Your task to perform on an android device: Open battery settings Image 0: 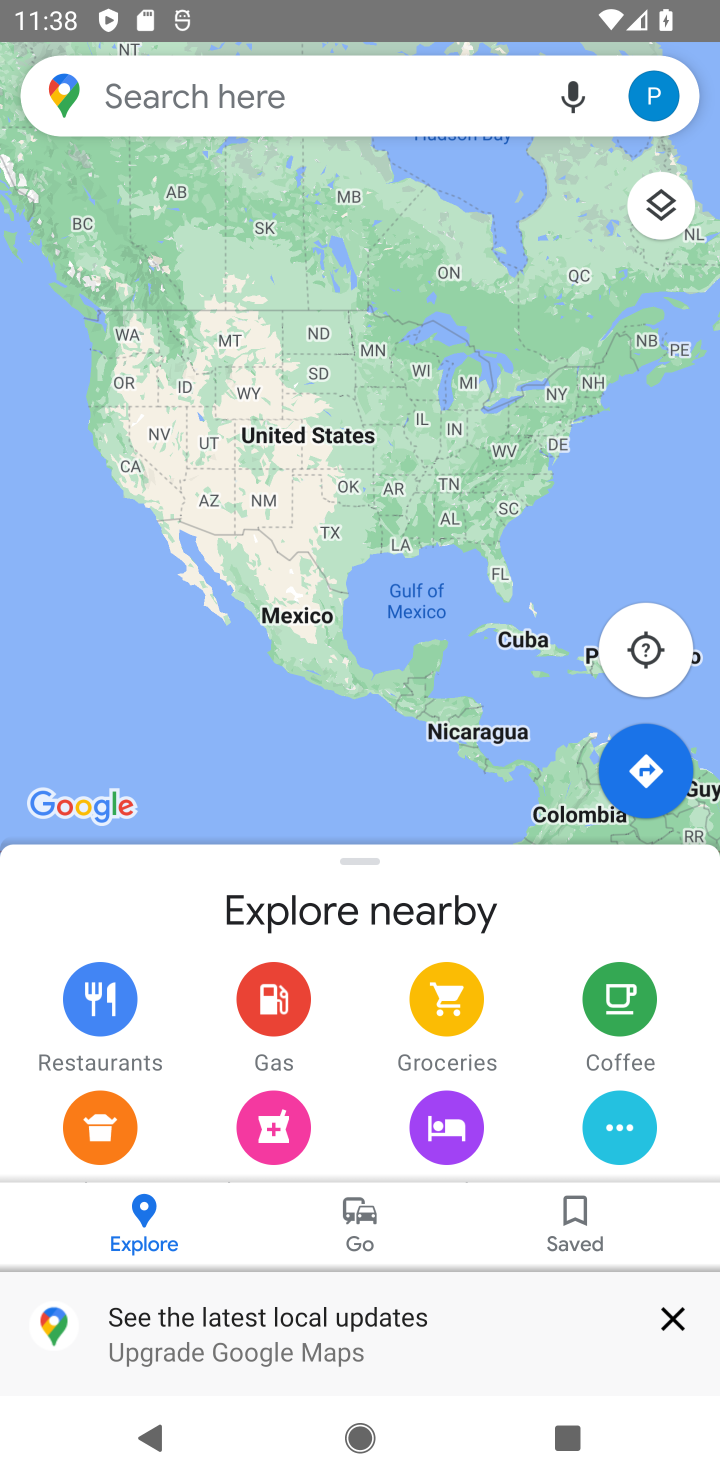
Step 0: press home button
Your task to perform on an android device: Open battery settings Image 1: 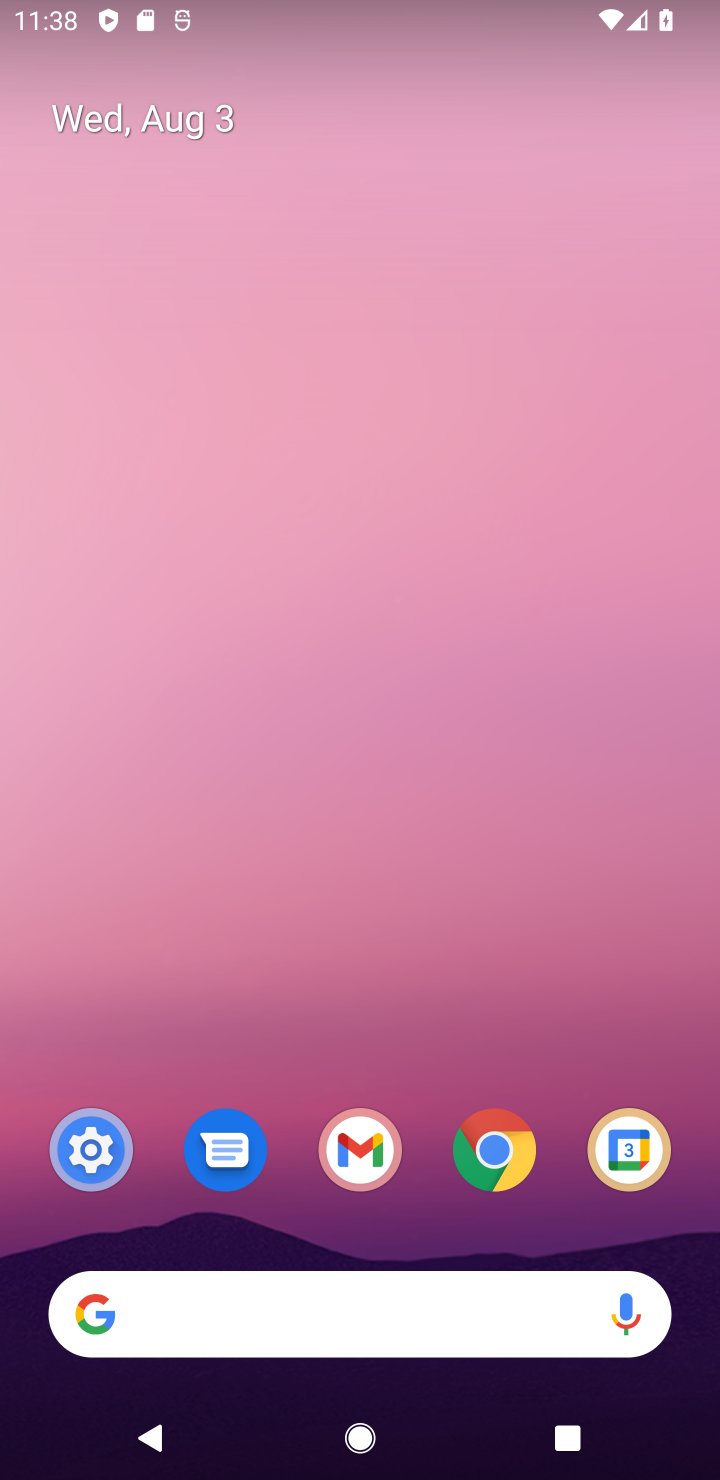
Step 1: drag from (584, 1001) to (552, 277)
Your task to perform on an android device: Open battery settings Image 2: 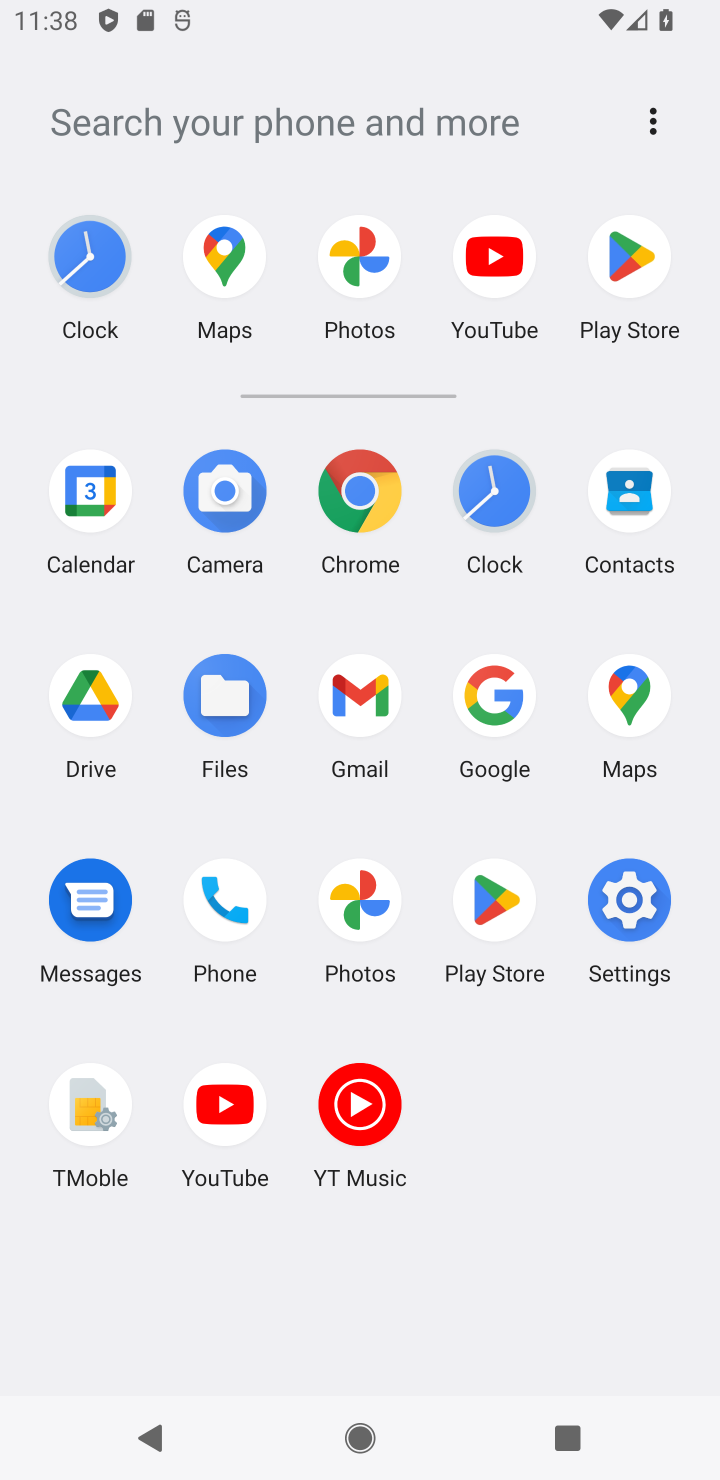
Step 2: click (625, 918)
Your task to perform on an android device: Open battery settings Image 3: 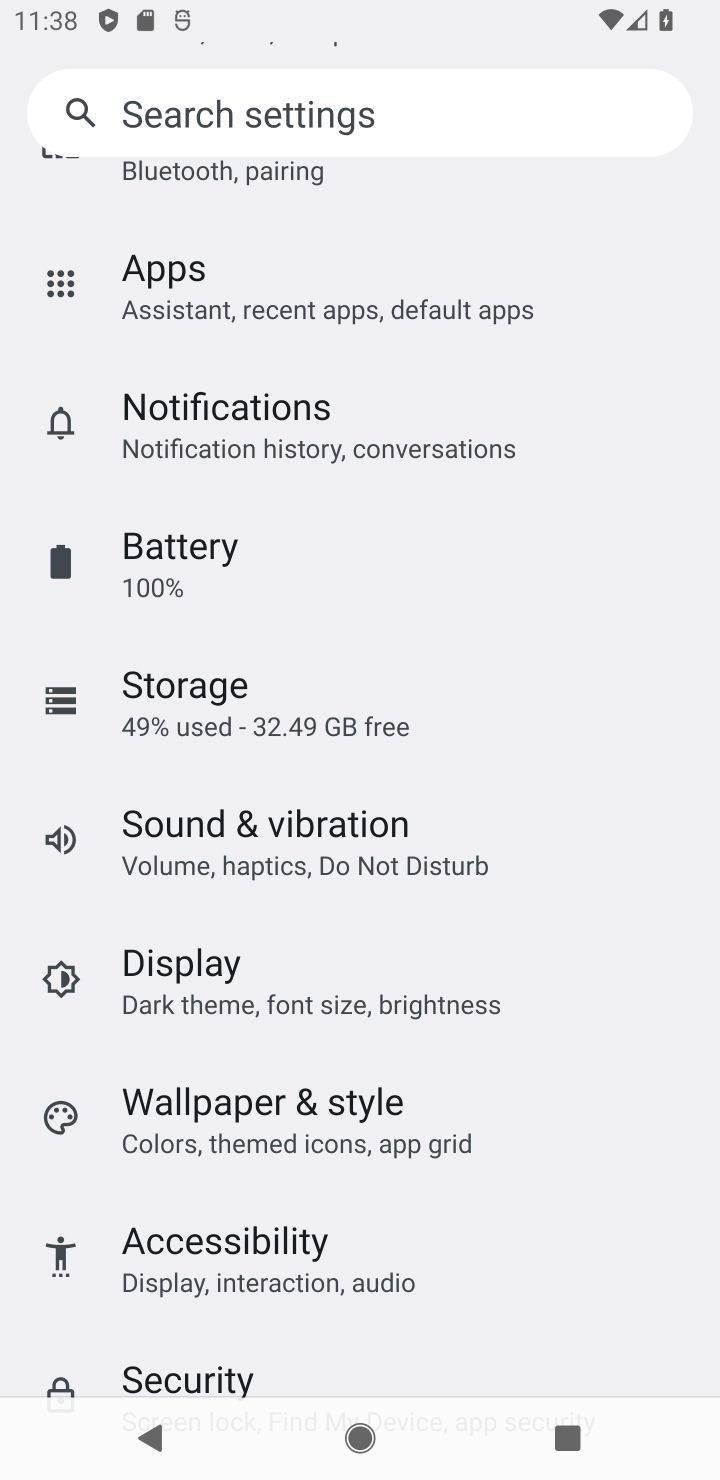
Step 3: drag from (564, 1203) to (559, 951)
Your task to perform on an android device: Open battery settings Image 4: 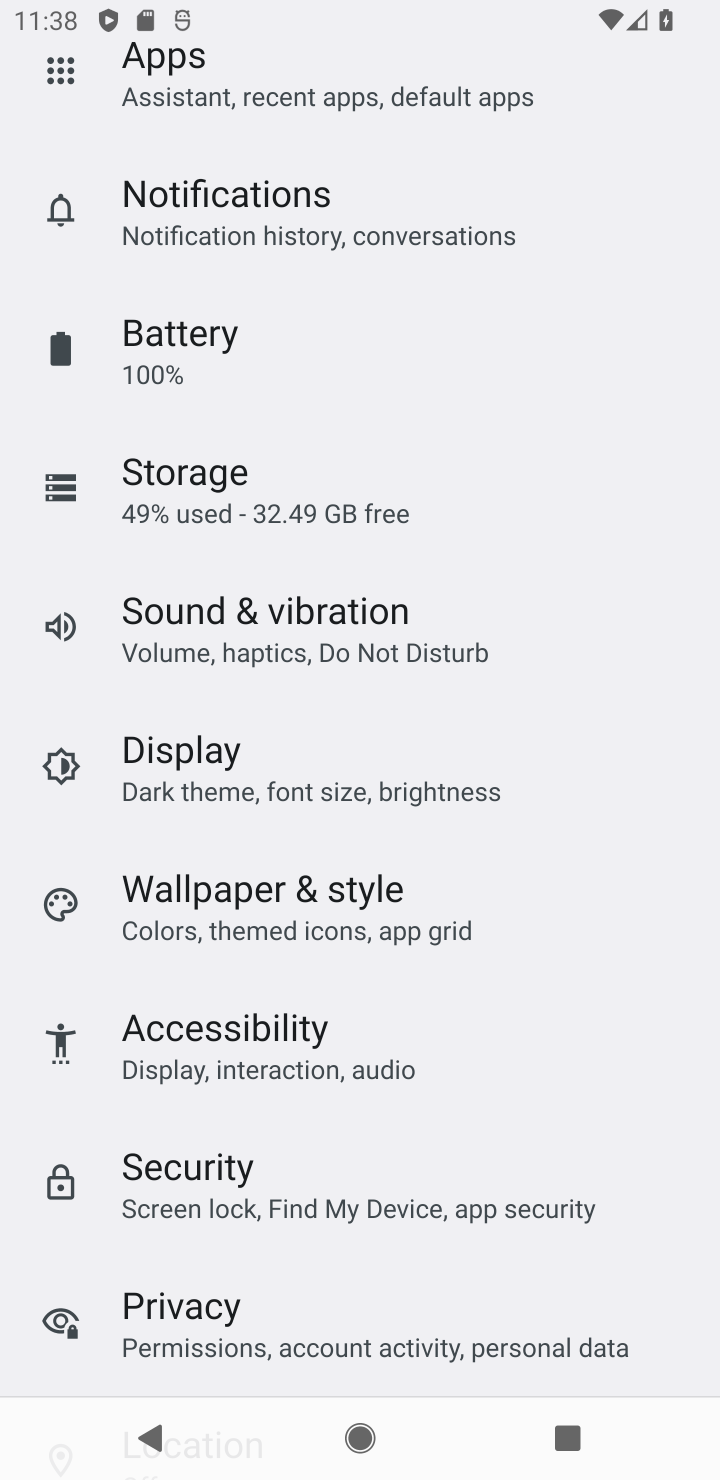
Step 4: drag from (564, 1227) to (568, 949)
Your task to perform on an android device: Open battery settings Image 5: 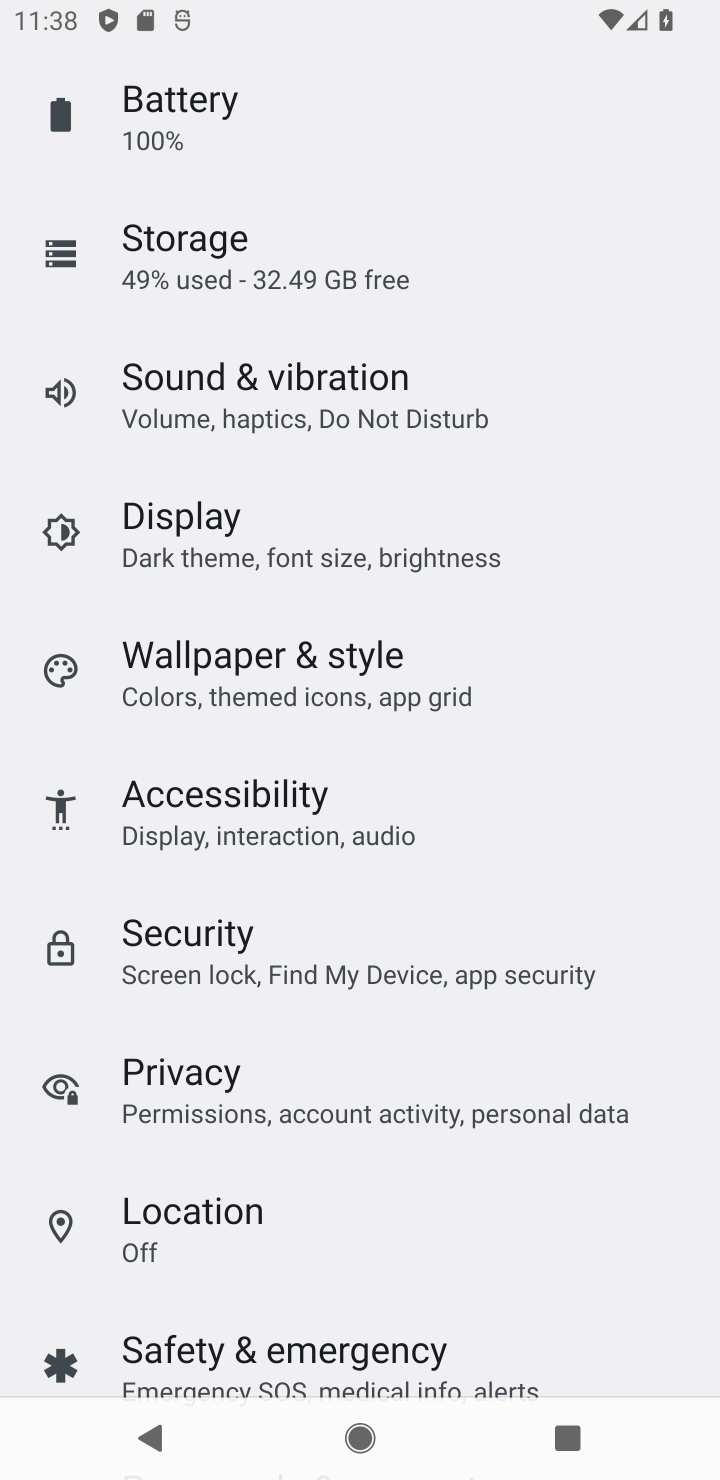
Step 5: drag from (568, 1247) to (577, 972)
Your task to perform on an android device: Open battery settings Image 6: 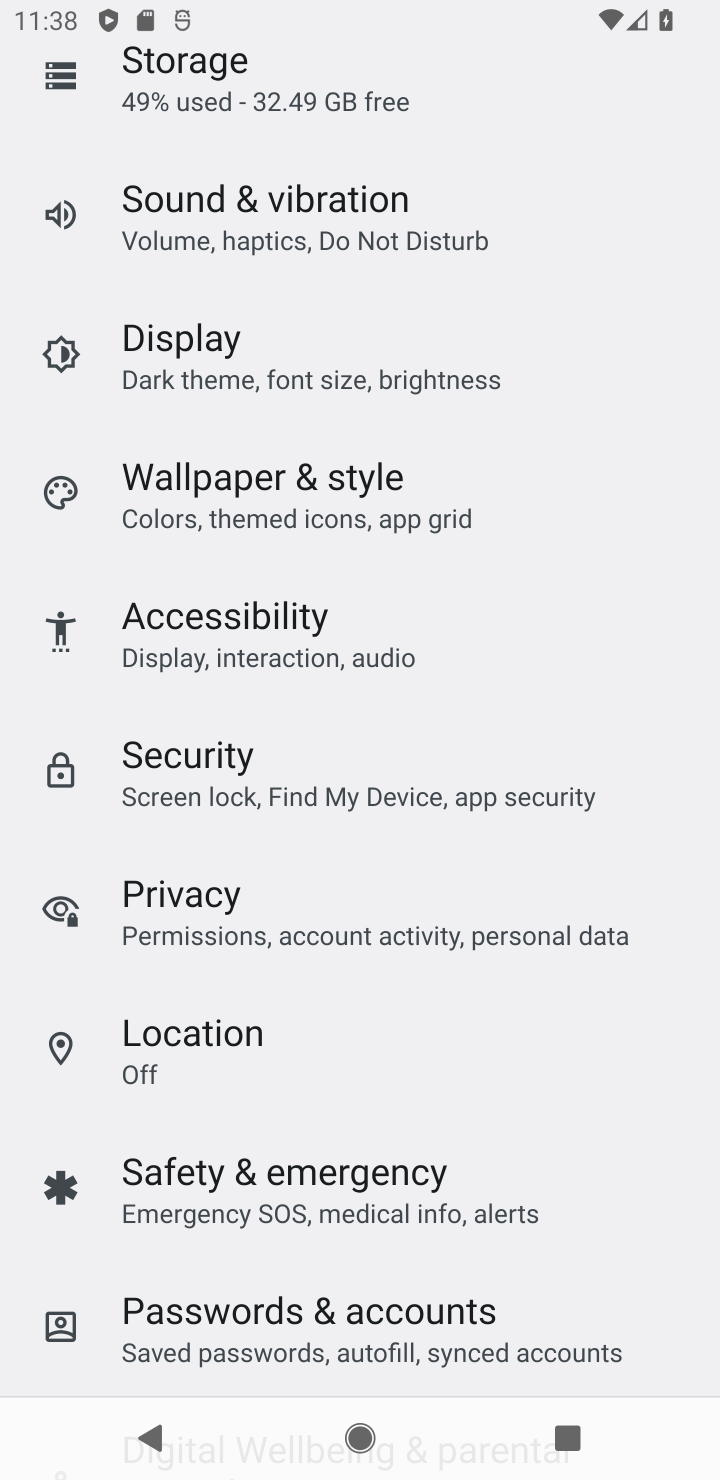
Step 6: drag from (606, 1248) to (607, 959)
Your task to perform on an android device: Open battery settings Image 7: 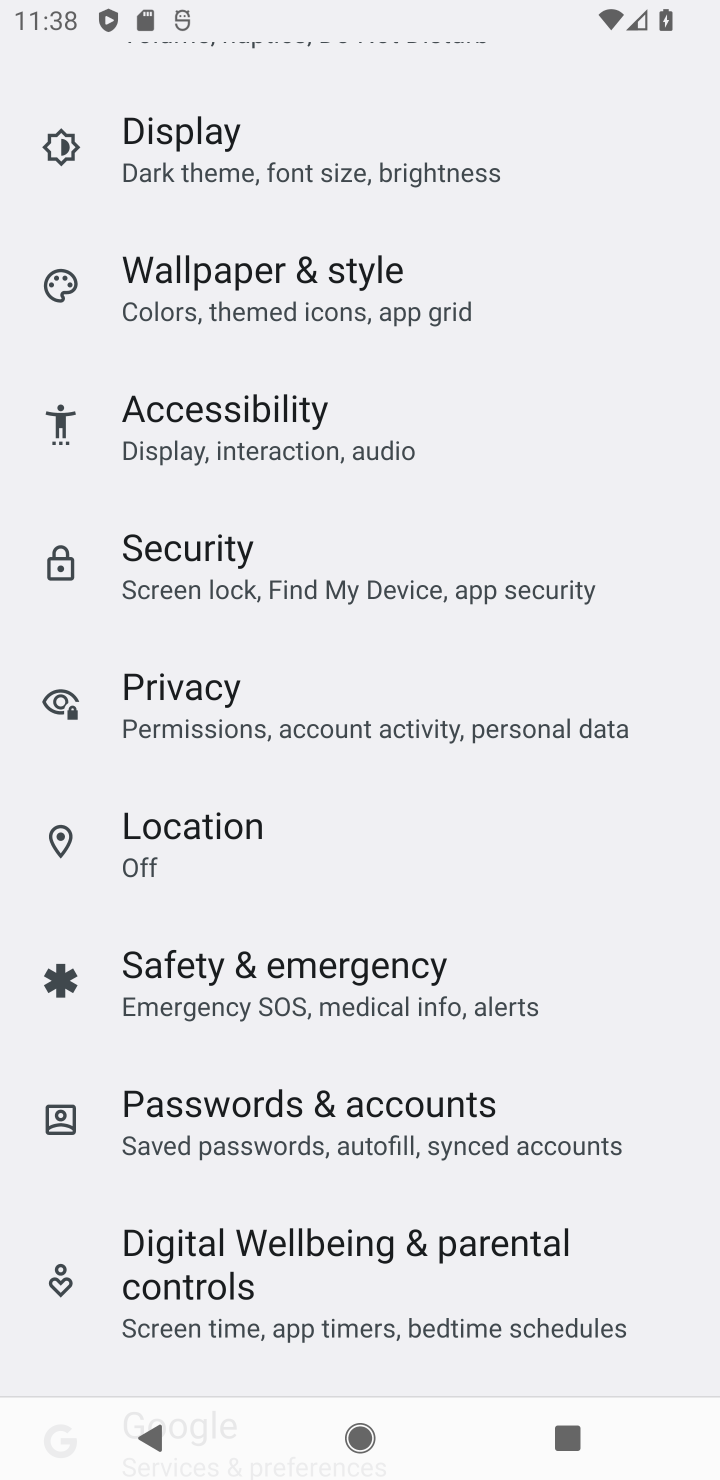
Step 7: drag from (640, 1243) to (644, 858)
Your task to perform on an android device: Open battery settings Image 8: 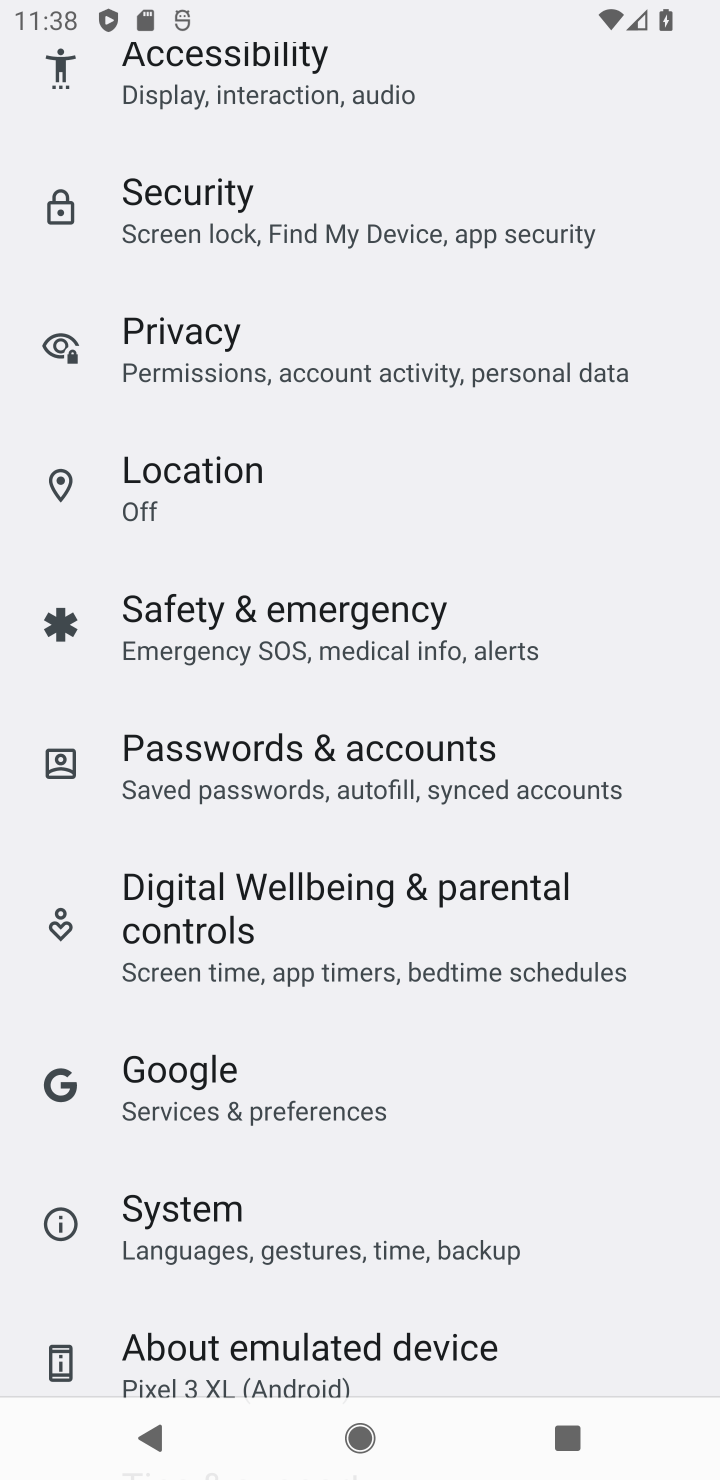
Step 8: drag from (663, 680) to (665, 871)
Your task to perform on an android device: Open battery settings Image 9: 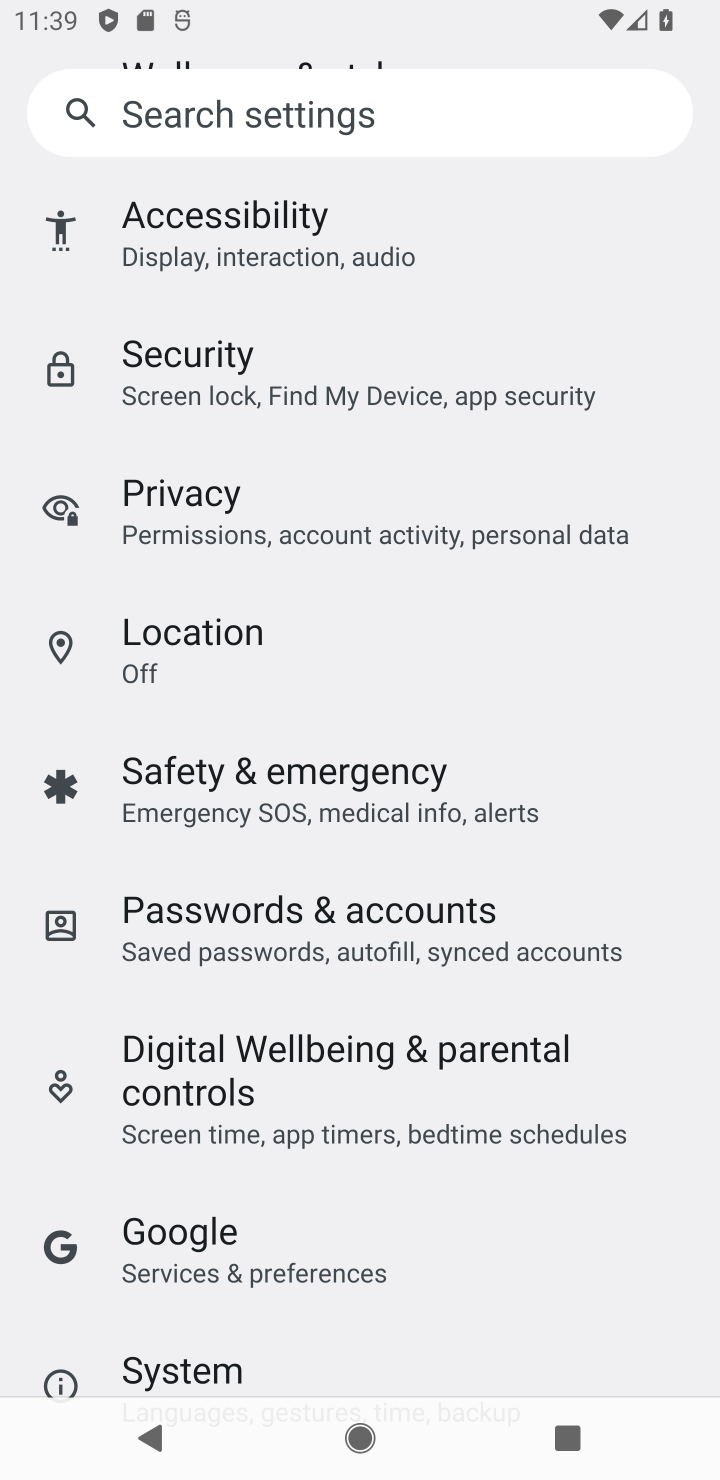
Step 9: drag from (627, 620) to (611, 801)
Your task to perform on an android device: Open battery settings Image 10: 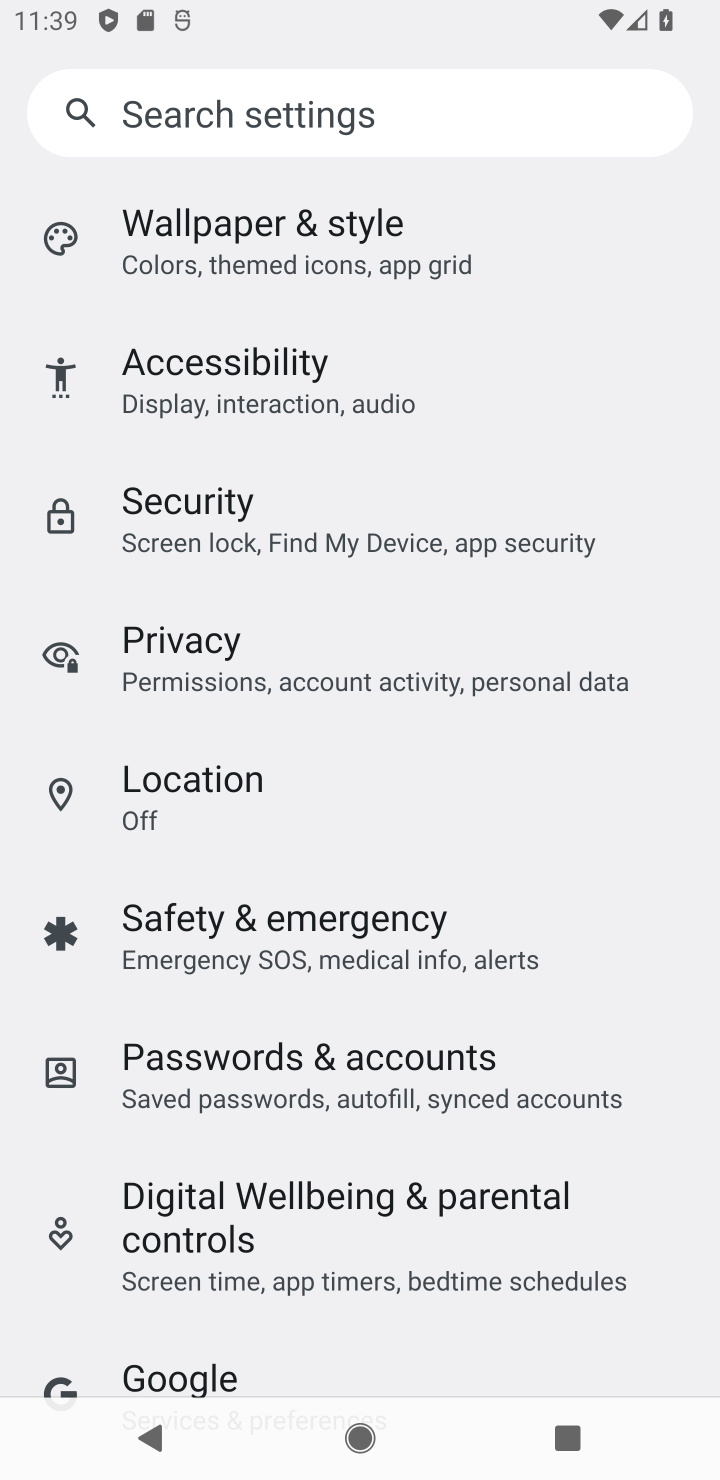
Step 10: drag from (644, 574) to (646, 804)
Your task to perform on an android device: Open battery settings Image 11: 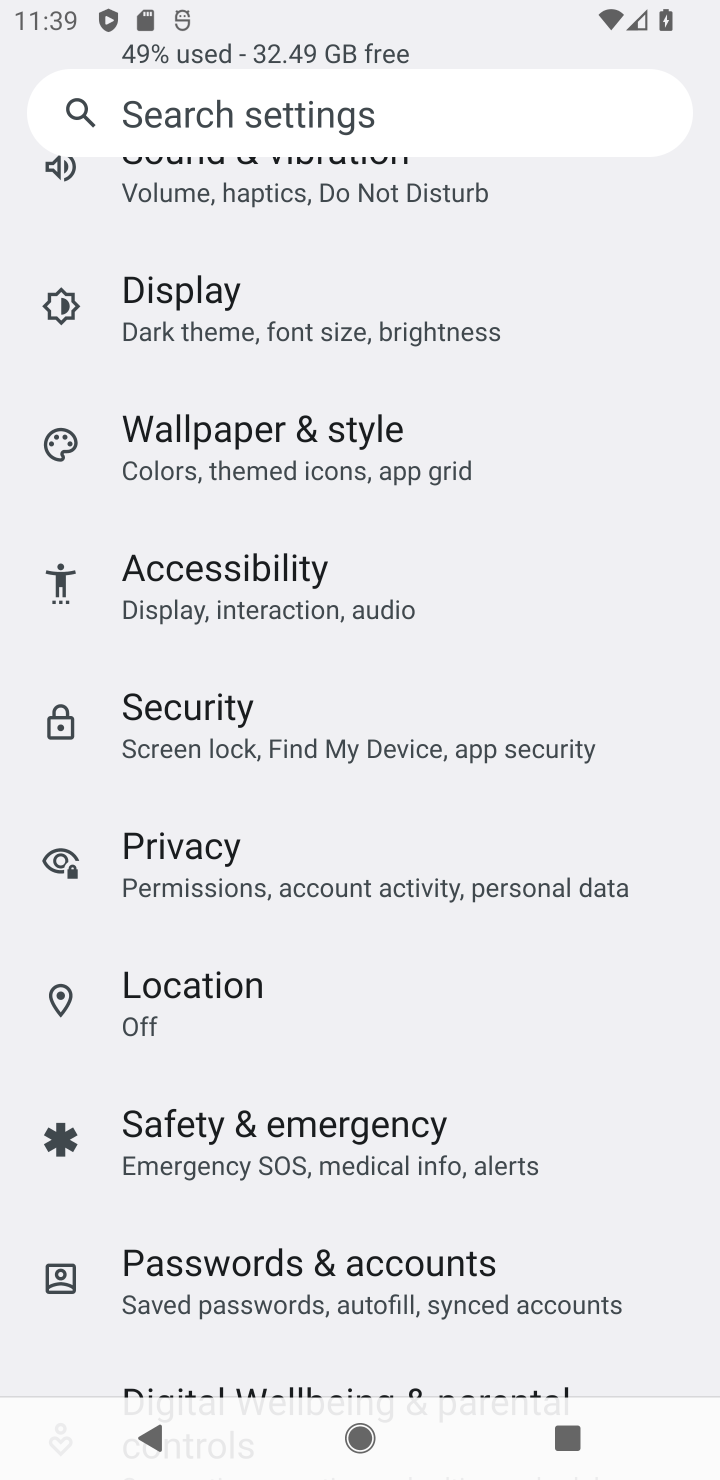
Step 11: drag from (644, 547) to (644, 742)
Your task to perform on an android device: Open battery settings Image 12: 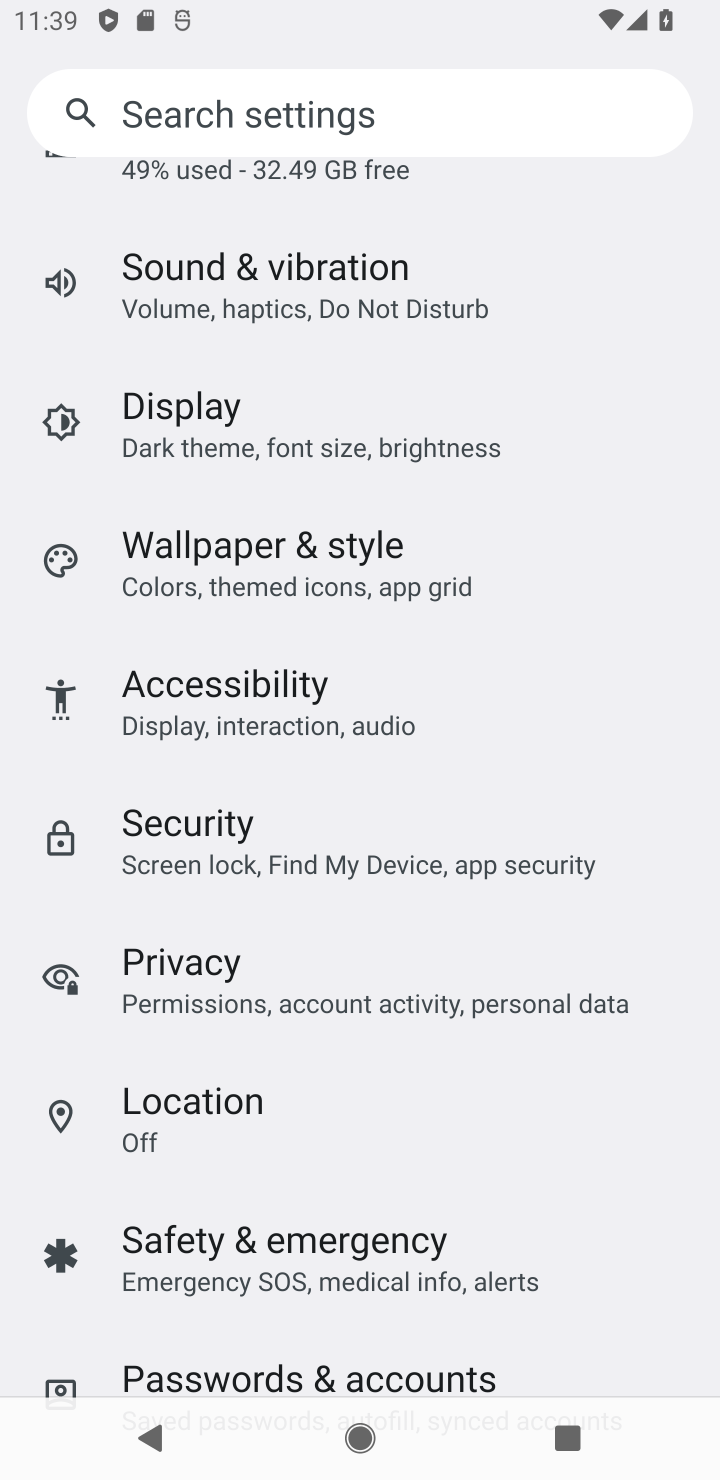
Step 12: drag from (622, 494) to (611, 733)
Your task to perform on an android device: Open battery settings Image 13: 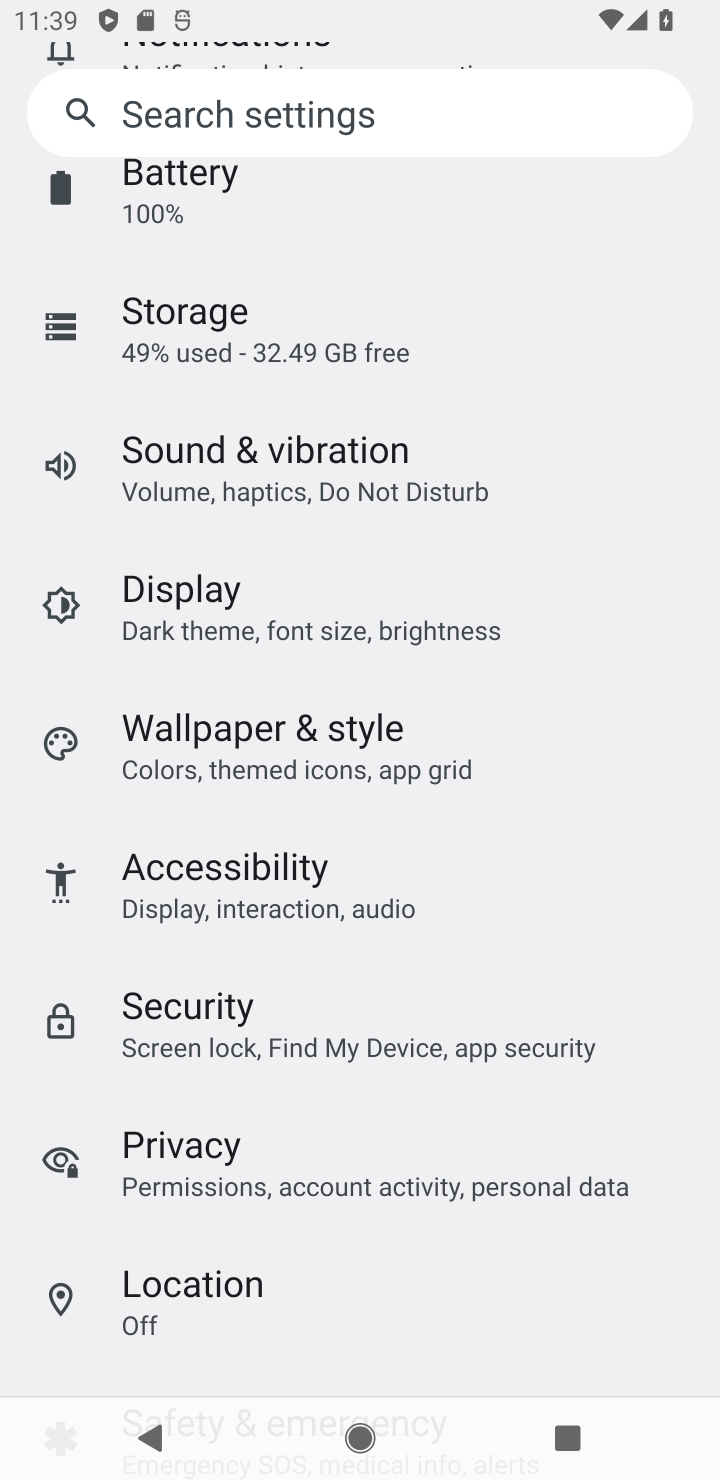
Step 13: drag from (607, 448) to (603, 789)
Your task to perform on an android device: Open battery settings Image 14: 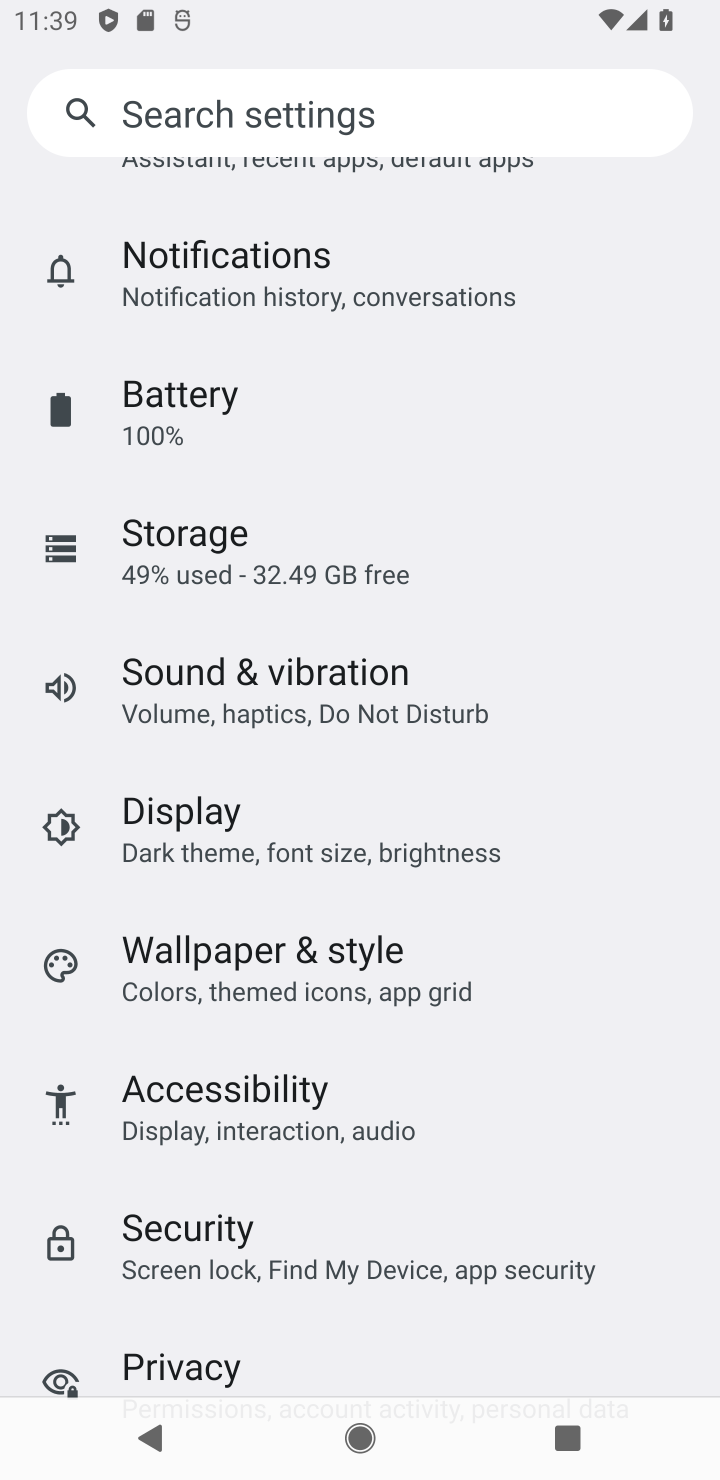
Step 14: drag from (601, 456) to (601, 848)
Your task to perform on an android device: Open battery settings Image 15: 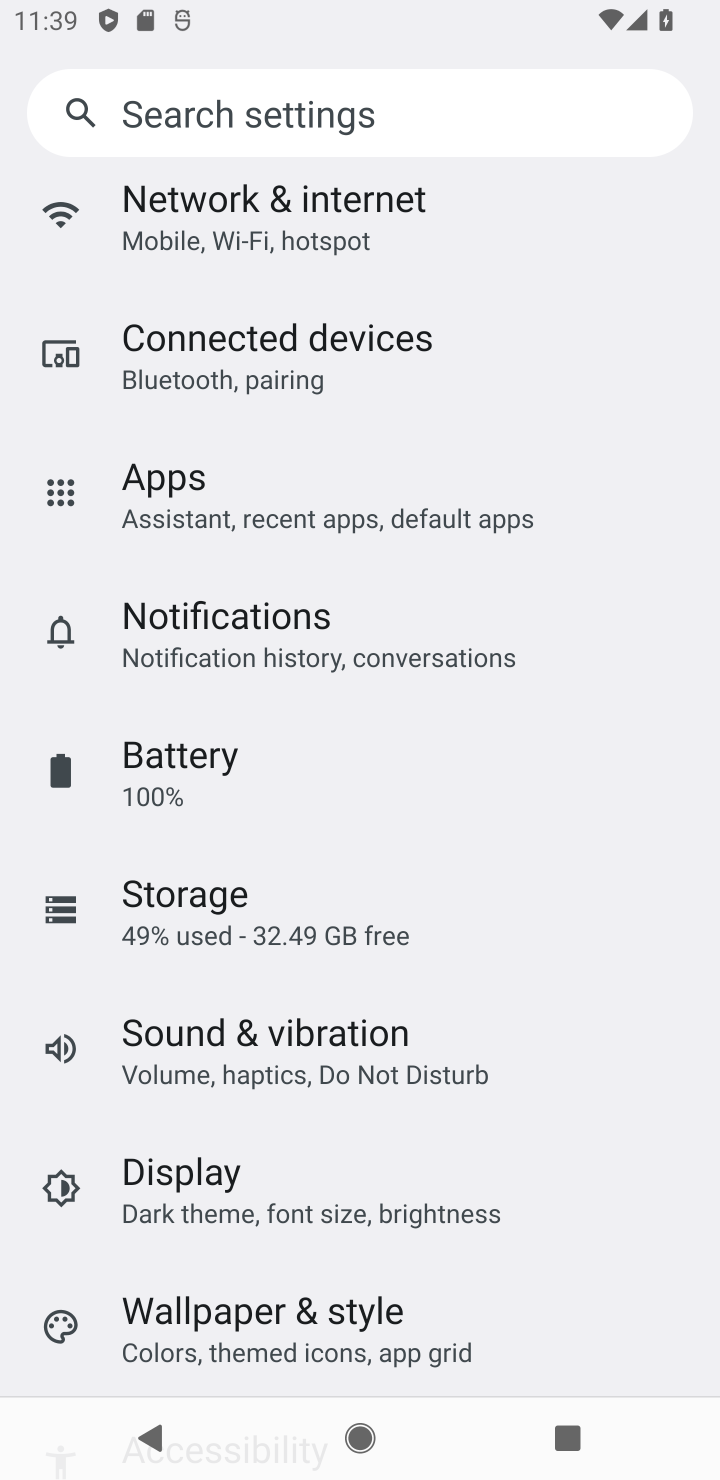
Step 15: drag from (583, 423) to (575, 796)
Your task to perform on an android device: Open battery settings Image 16: 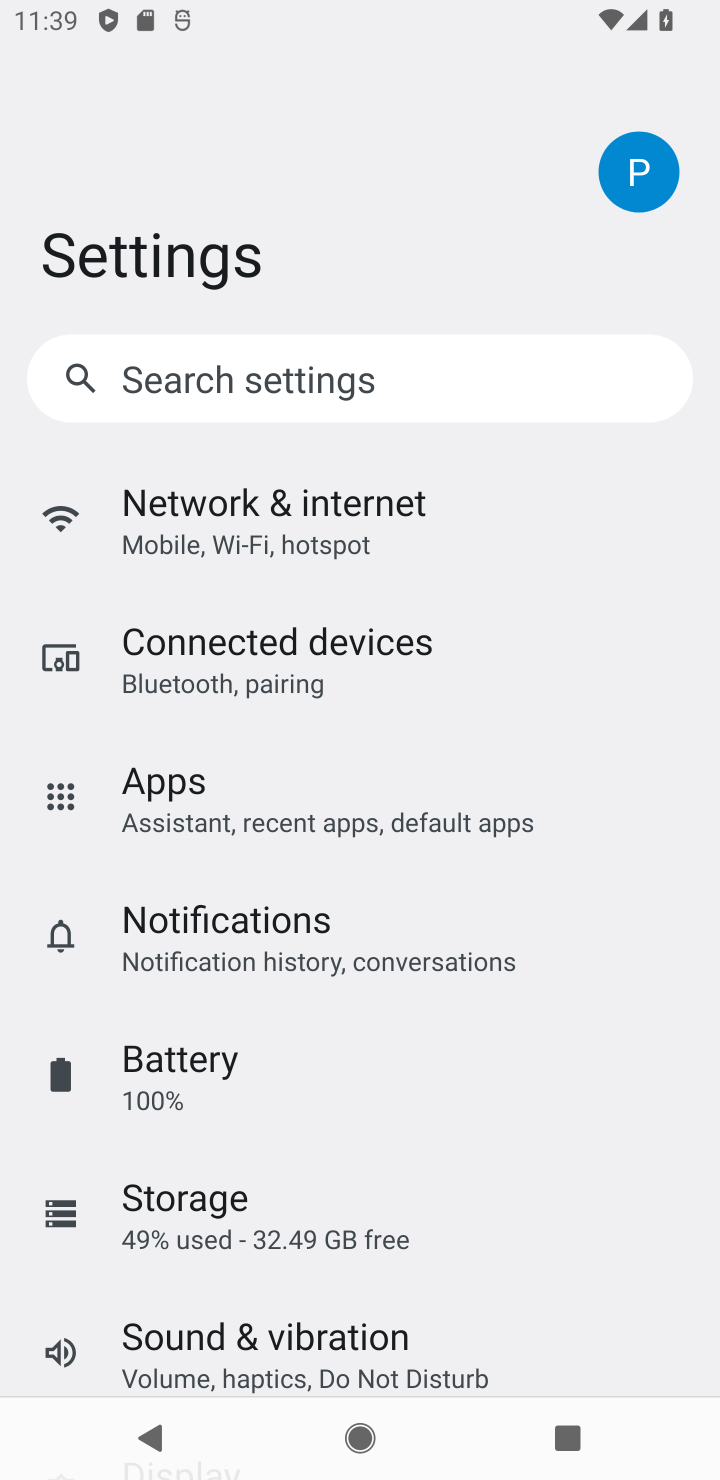
Step 16: click (268, 1088)
Your task to perform on an android device: Open battery settings Image 17: 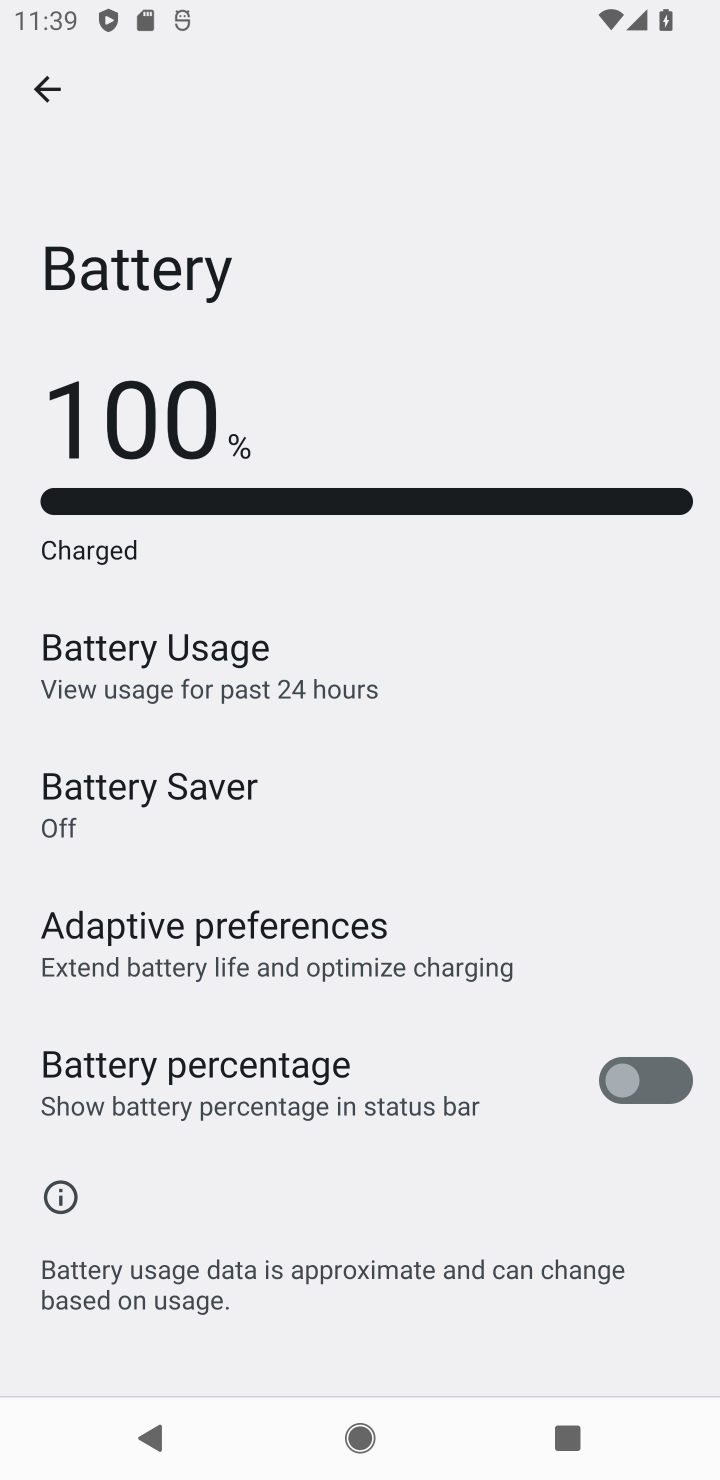
Step 17: task complete